Your task to perform on an android device: Go to privacy settings Image 0: 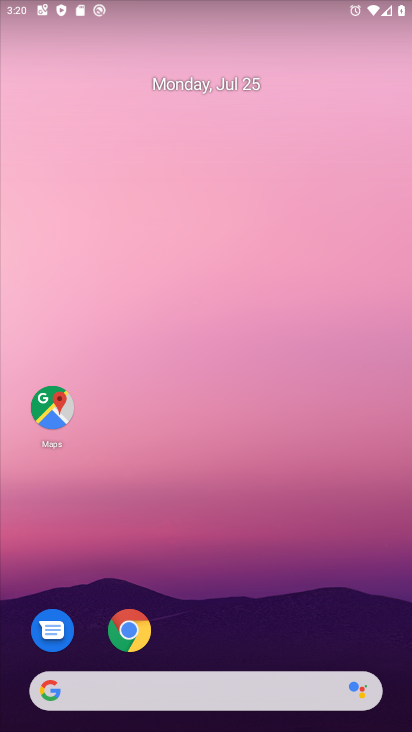
Step 0: drag from (221, 692) to (221, 159)
Your task to perform on an android device: Go to privacy settings Image 1: 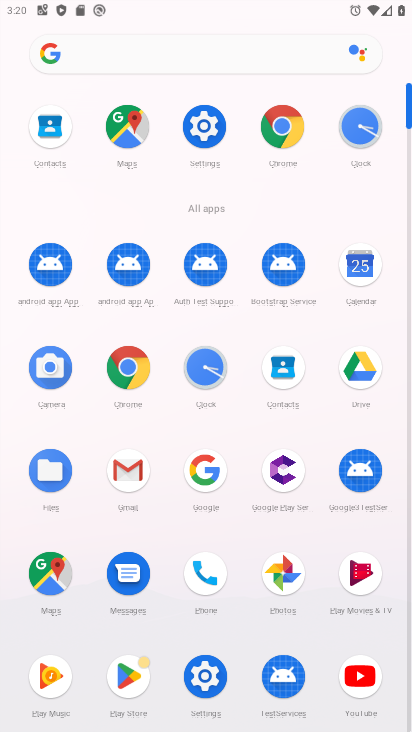
Step 1: click (202, 131)
Your task to perform on an android device: Go to privacy settings Image 2: 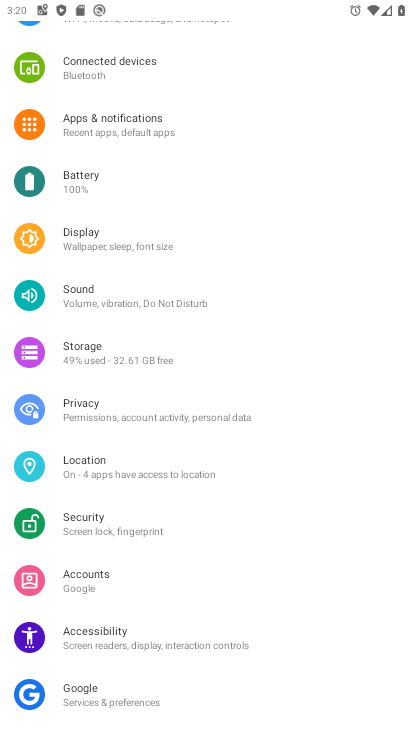
Step 2: click (83, 420)
Your task to perform on an android device: Go to privacy settings Image 3: 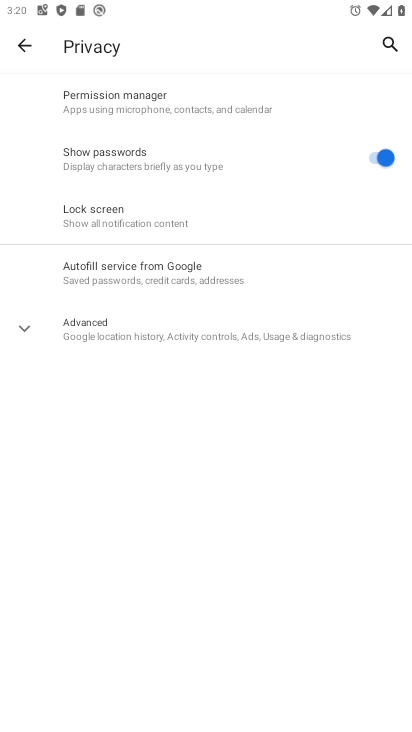
Step 3: task complete